Your task to perform on an android device: Go to battery settings Image 0: 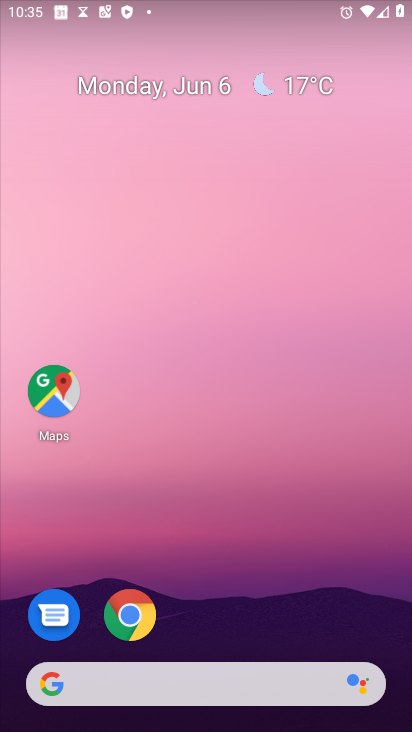
Step 0: press home button
Your task to perform on an android device: Go to battery settings Image 1: 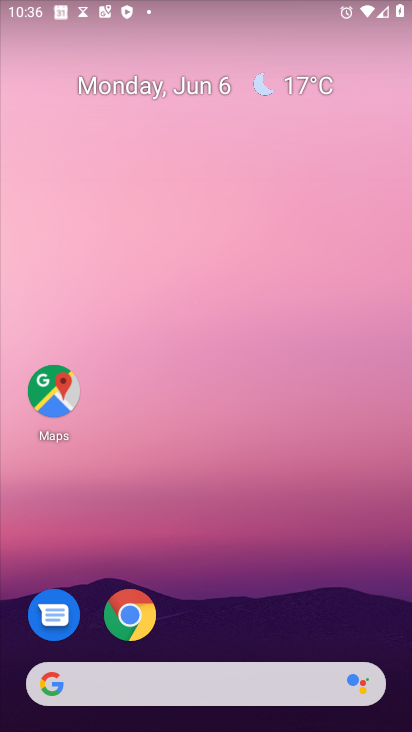
Step 1: drag from (219, 641) to (254, 143)
Your task to perform on an android device: Go to battery settings Image 2: 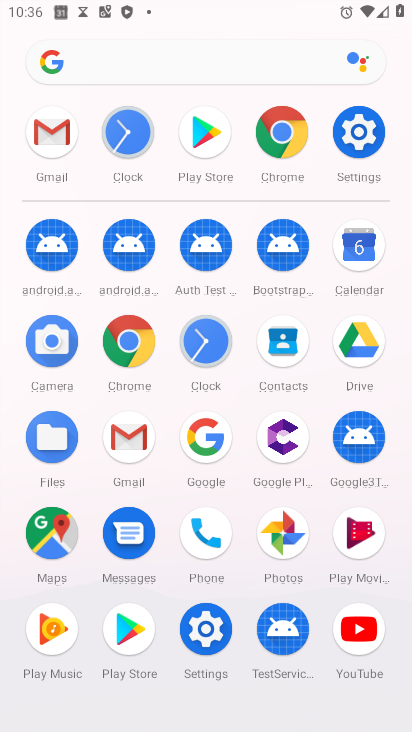
Step 2: click (356, 126)
Your task to perform on an android device: Go to battery settings Image 3: 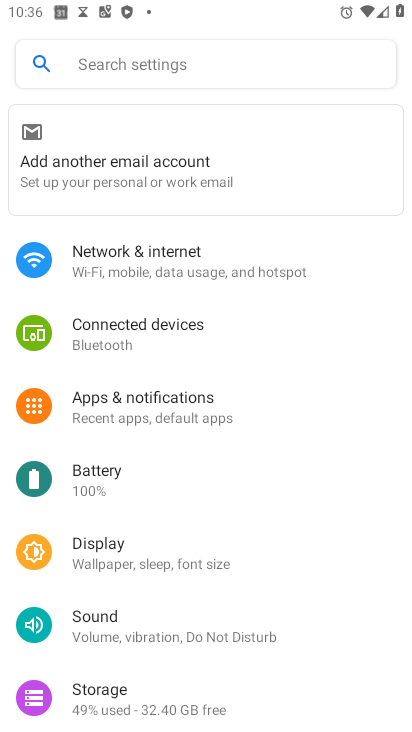
Step 3: click (141, 482)
Your task to perform on an android device: Go to battery settings Image 4: 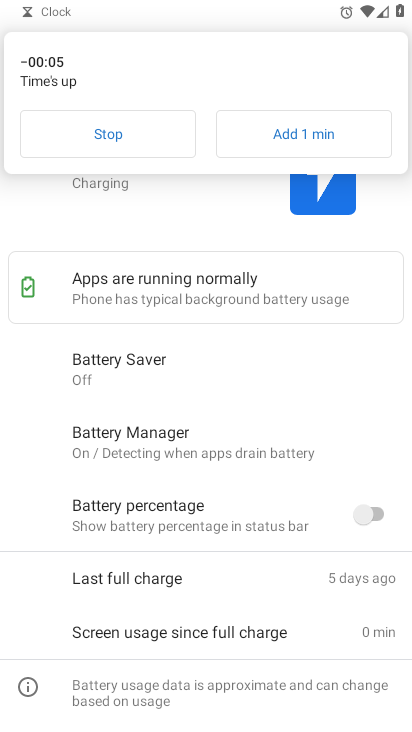
Step 4: click (123, 129)
Your task to perform on an android device: Go to battery settings Image 5: 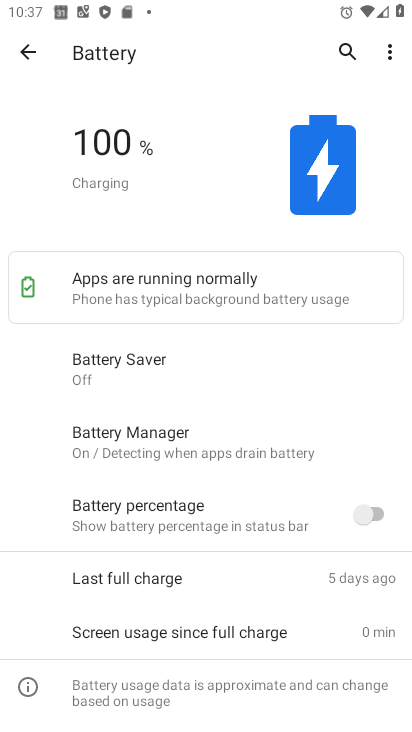
Step 5: drag from (193, 622) to (185, 486)
Your task to perform on an android device: Go to battery settings Image 6: 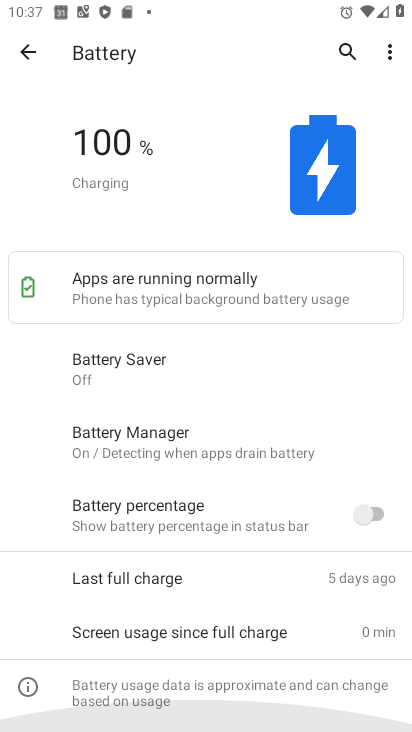
Step 6: click (185, 277)
Your task to perform on an android device: Go to battery settings Image 7: 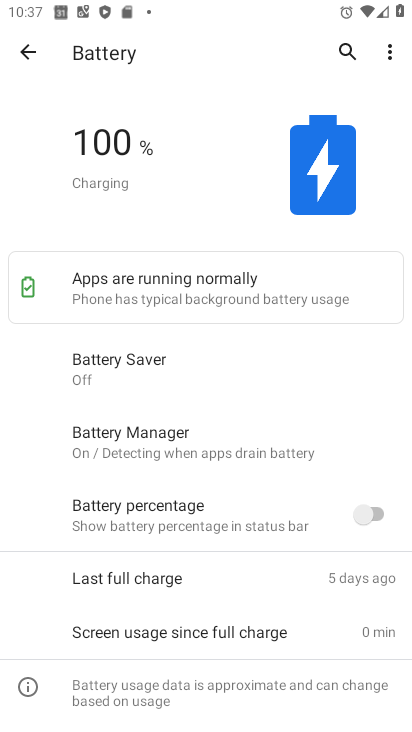
Step 7: task complete